Your task to perform on an android device: Open Reddit.com Image 0: 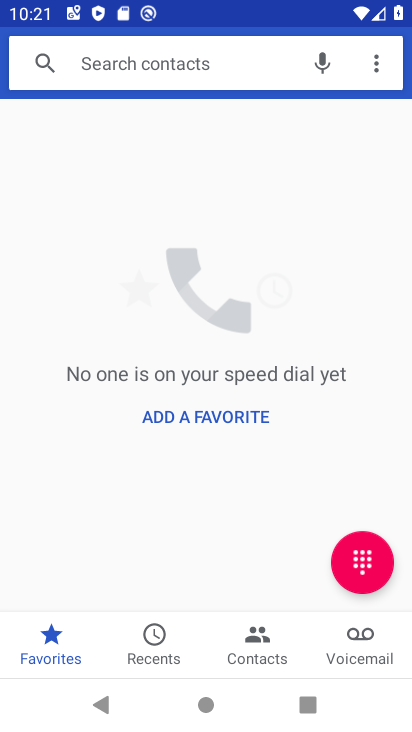
Step 0: press home button
Your task to perform on an android device: Open Reddit.com Image 1: 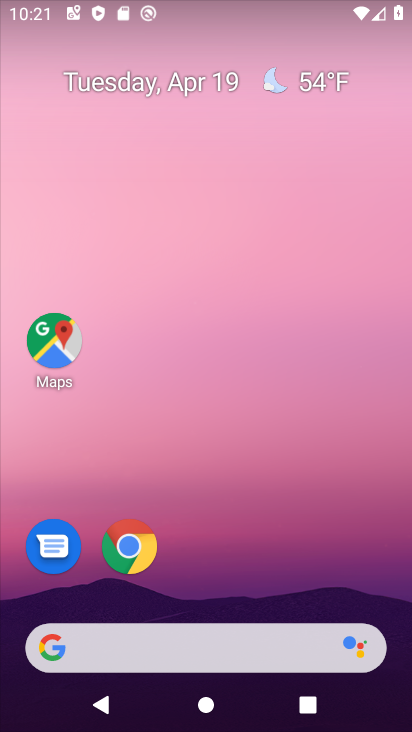
Step 1: click (169, 655)
Your task to perform on an android device: Open Reddit.com Image 2: 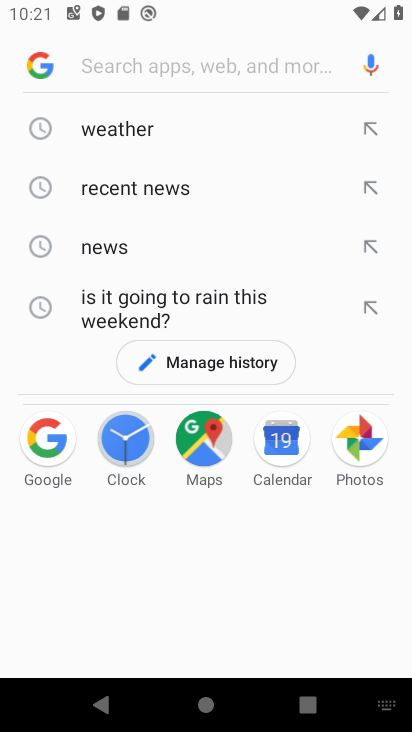
Step 2: type "reddit.com"
Your task to perform on an android device: Open Reddit.com Image 3: 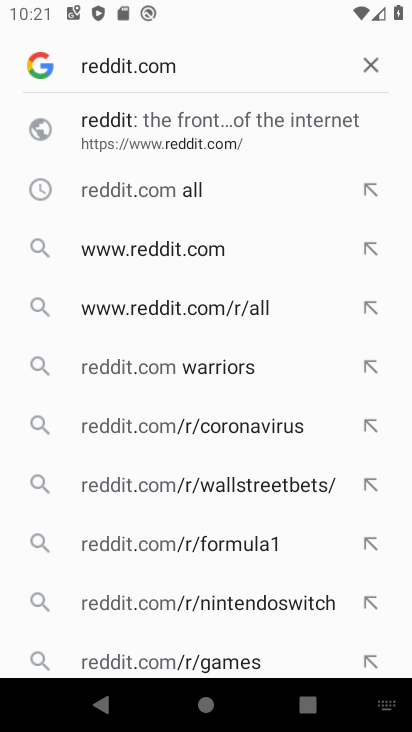
Step 3: click (239, 127)
Your task to perform on an android device: Open Reddit.com Image 4: 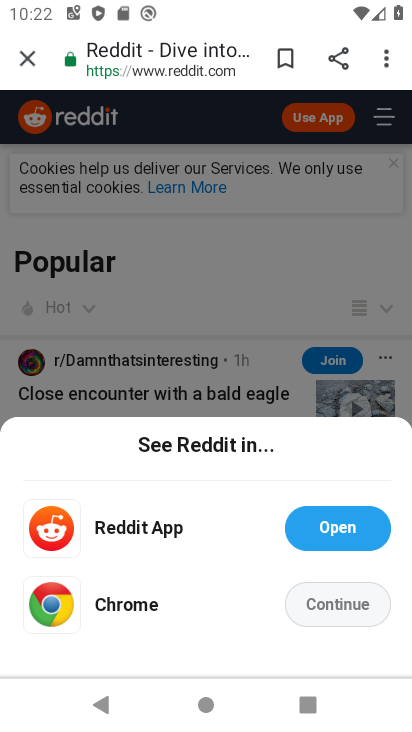
Step 4: task complete